Your task to perform on an android device: When is my next meeting? Image 0: 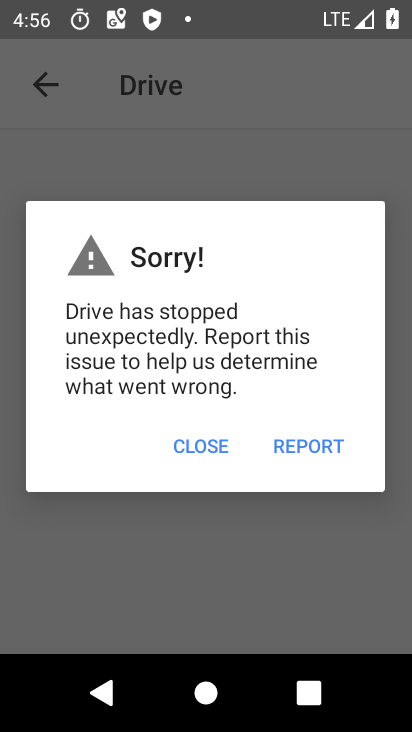
Step 0: press home button
Your task to perform on an android device: When is my next meeting? Image 1: 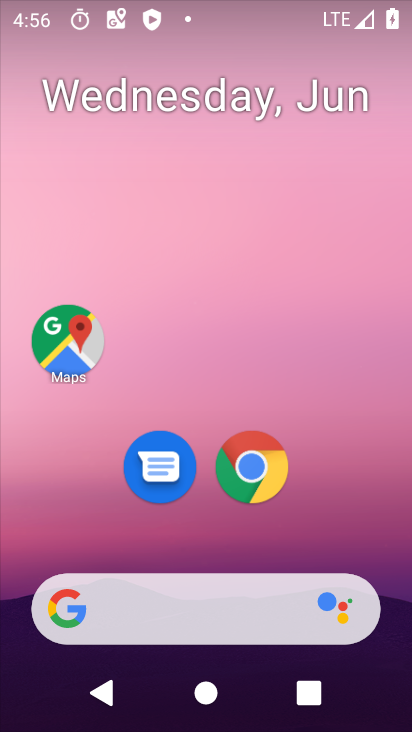
Step 1: drag from (337, 525) to (196, 34)
Your task to perform on an android device: When is my next meeting? Image 2: 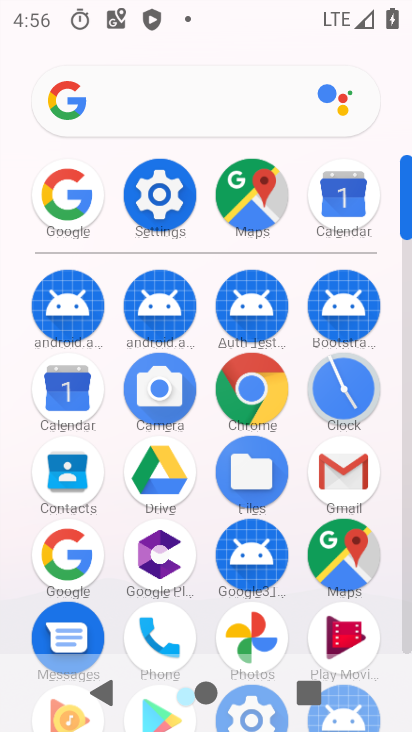
Step 2: click (69, 401)
Your task to perform on an android device: When is my next meeting? Image 3: 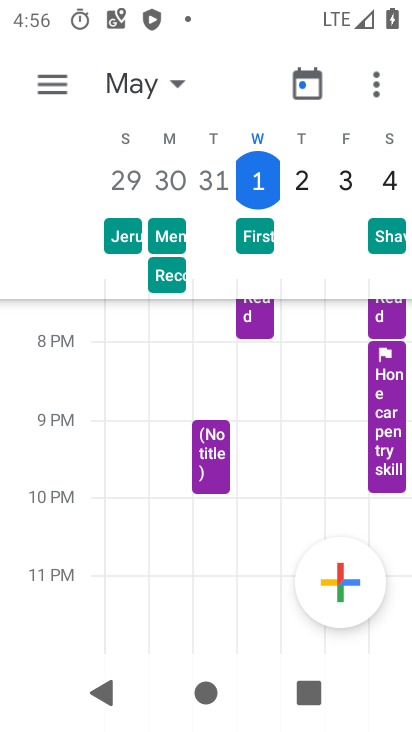
Step 3: task complete